Your task to perform on an android device: empty trash in the gmail app Image 0: 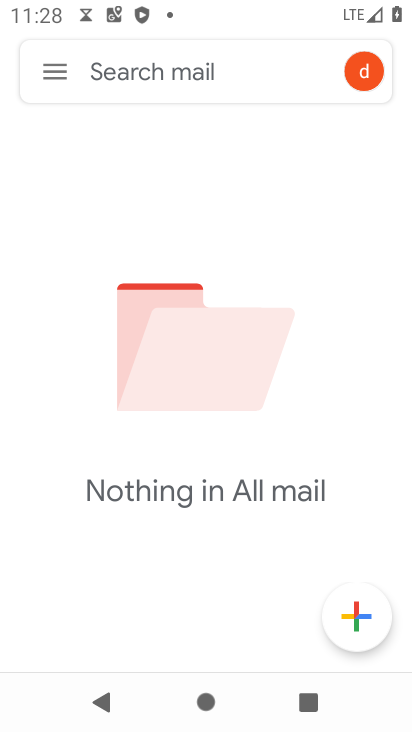
Step 0: click (55, 75)
Your task to perform on an android device: empty trash in the gmail app Image 1: 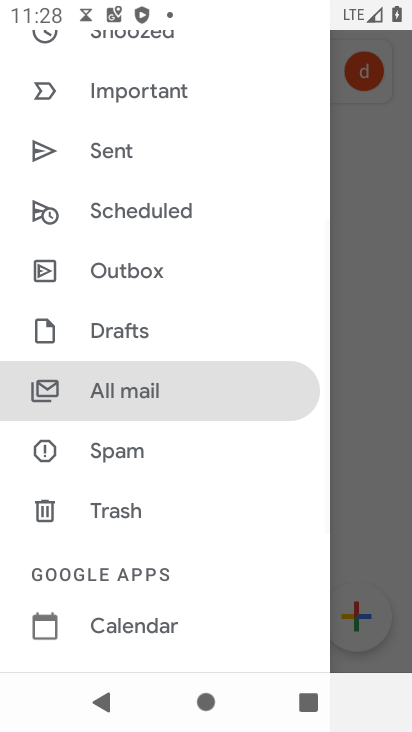
Step 1: click (124, 517)
Your task to perform on an android device: empty trash in the gmail app Image 2: 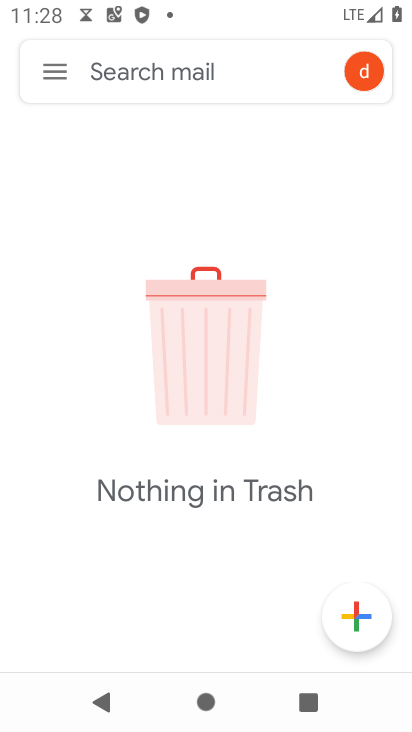
Step 2: task complete